Your task to perform on an android device: Open Reddit.com Image 0: 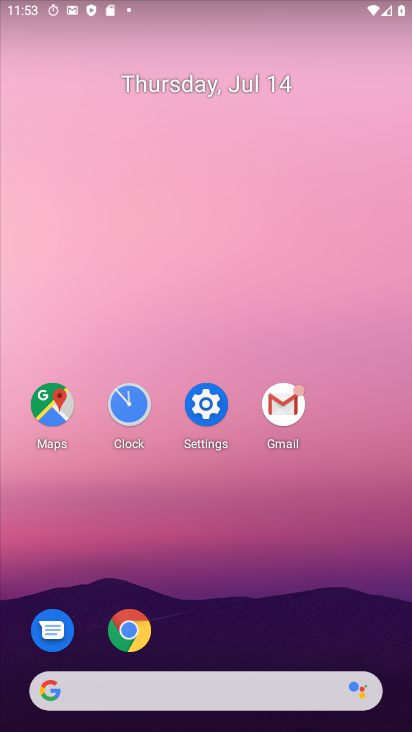
Step 0: click (127, 617)
Your task to perform on an android device: Open Reddit.com Image 1: 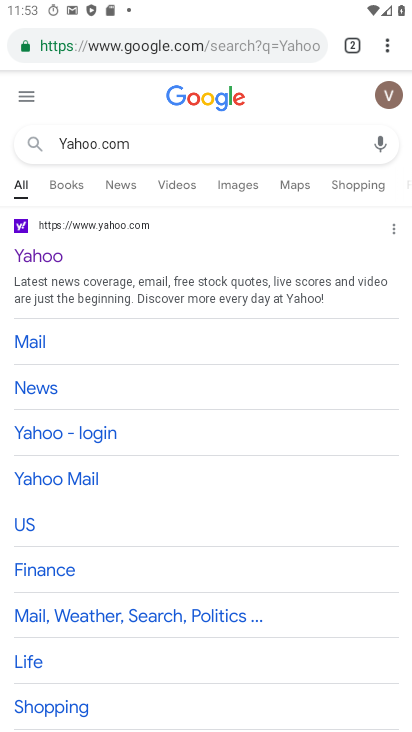
Step 1: click (295, 39)
Your task to perform on an android device: Open Reddit.com Image 2: 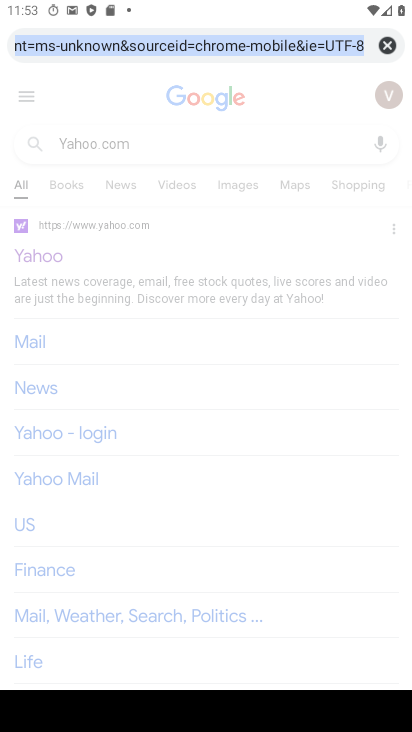
Step 2: click (390, 36)
Your task to perform on an android device: Open Reddit.com Image 3: 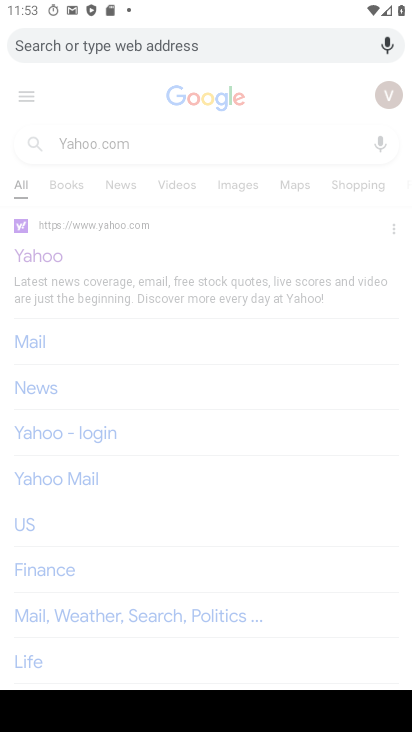
Step 3: type "Reddit.com"
Your task to perform on an android device: Open Reddit.com Image 4: 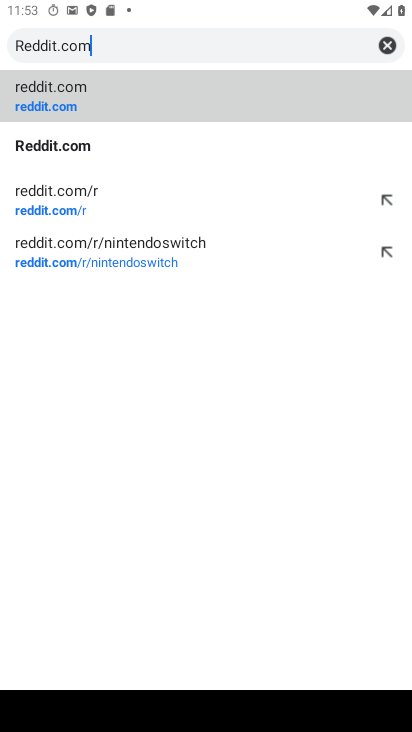
Step 4: click (46, 145)
Your task to perform on an android device: Open Reddit.com Image 5: 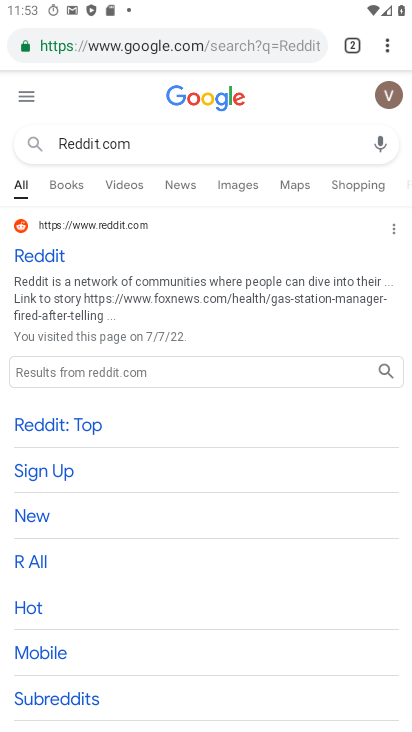
Step 5: task complete